Your task to perform on an android device: turn off data saver in the chrome app Image 0: 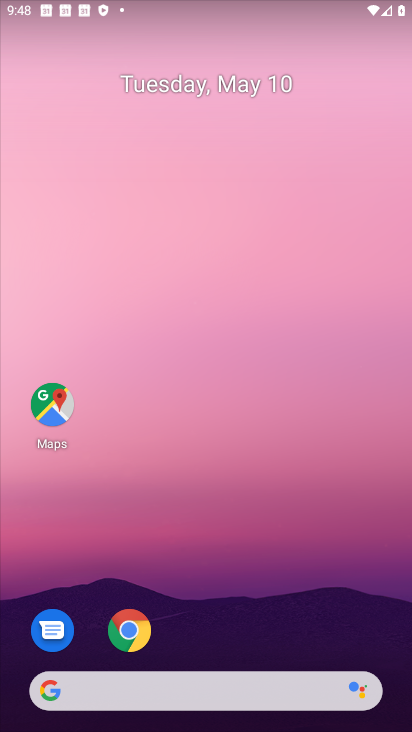
Step 0: click (132, 620)
Your task to perform on an android device: turn off data saver in the chrome app Image 1: 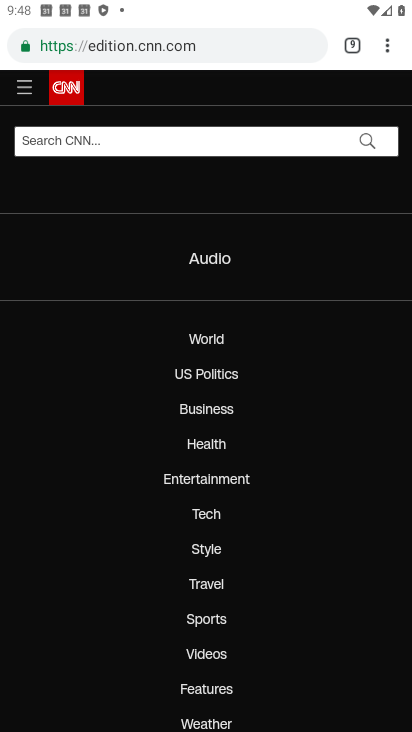
Step 1: click (387, 46)
Your task to perform on an android device: turn off data saver in the chrome app Image 2: 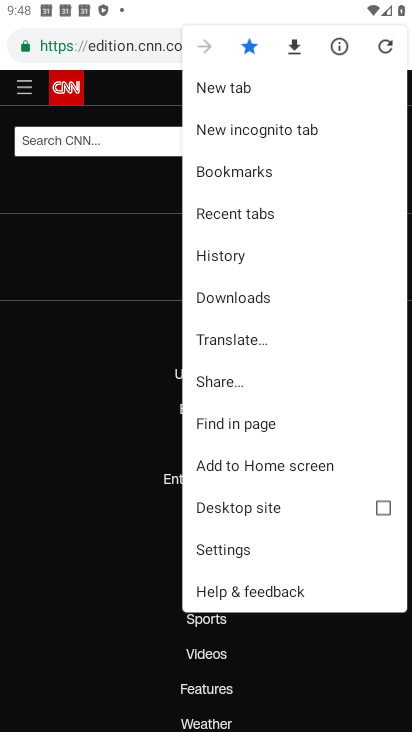
Step 2: click (274, 552)
Your task to perform on an android device: turn off data saver in the chrome app Image 3: 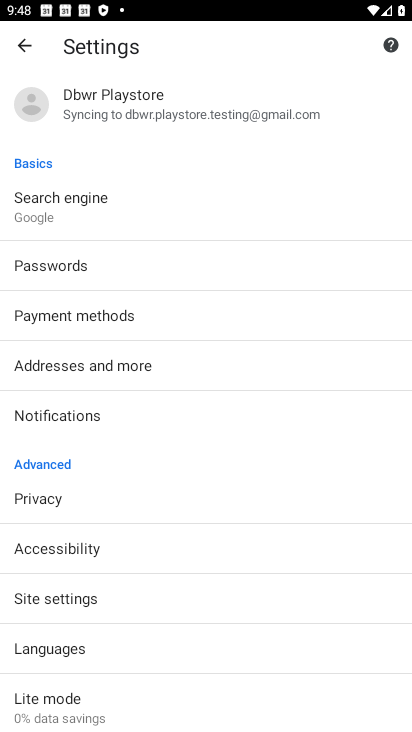
Step 3: click (85, 713)
Your task to perform on an android device: turn off data saver in the chrome app Image 4: 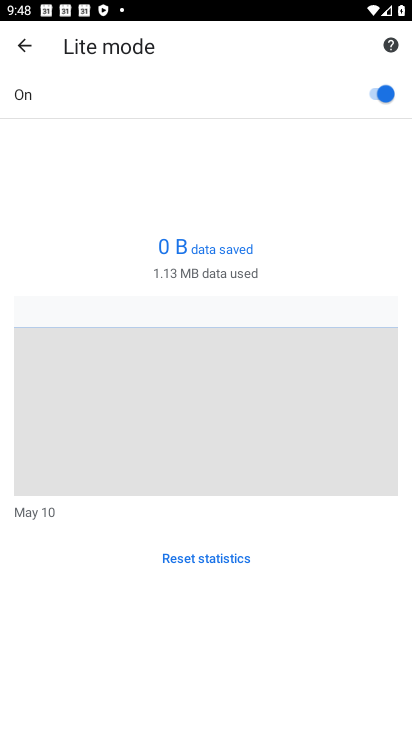
Step 4: click (390, 98)
Your task to perform on an android device: turn off data saver in the chrome app Image 5: 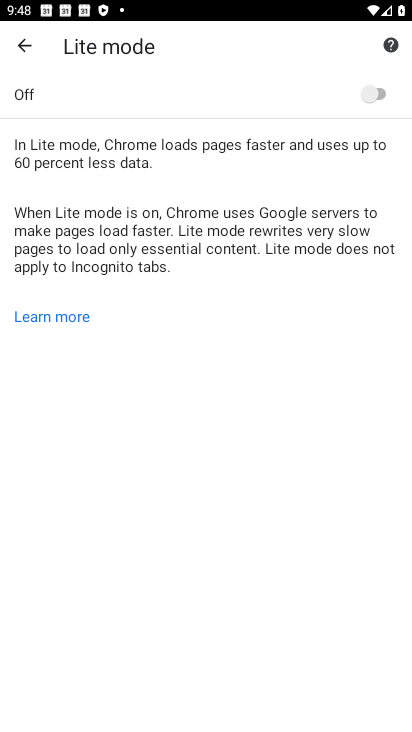
Step 5: task complete